Your task to perform on an android device: open the mobile data screen to see how much data has been used Image 0: 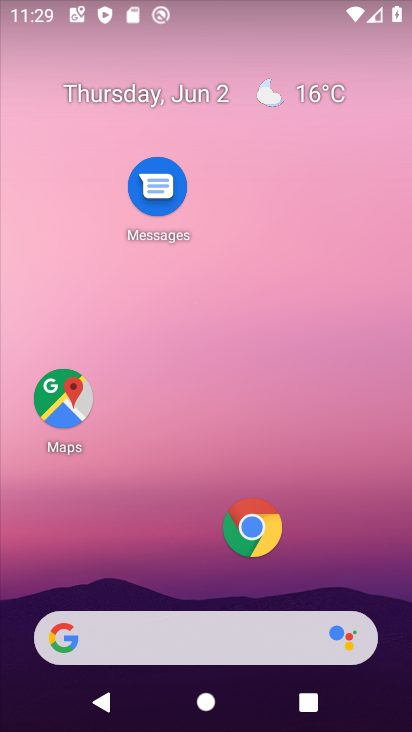
Step 0: press home button
Your task to perform on an android device: open the mobile data screen to see how much data has been used Image 1: 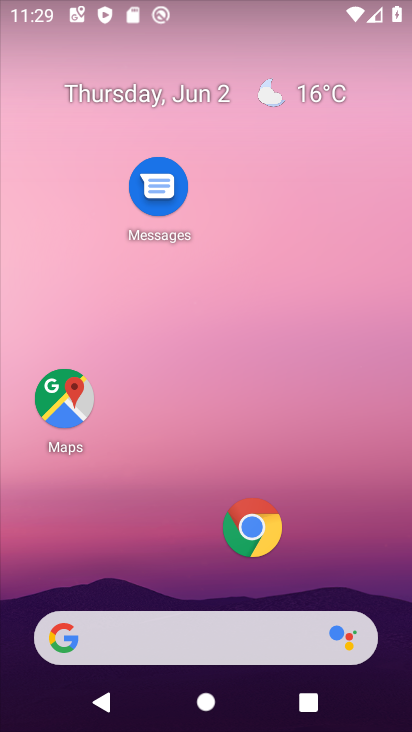
Step 1: drag from (219, 587) to (252, 74)
Your task to perform on an android device: open the mobile data screen to see how much data has been used Image 2: 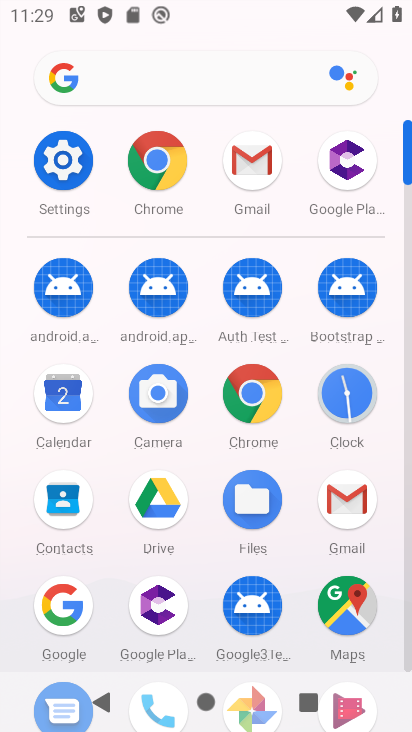
Step 2: click (62, 151)
Your task to perform on an android device: open the mobile data screen to see how much data has been used Image 3: 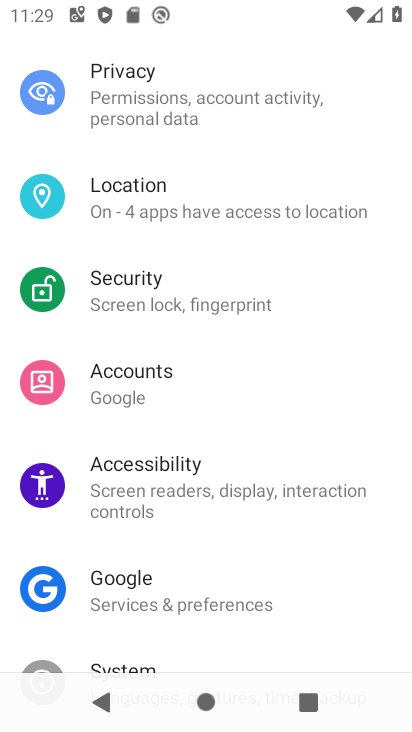
Step 3: drag from (179, 149) to (167, 624)
Your task to perform on an android device: open the mobile data screen to see how much data has been used Image 4: 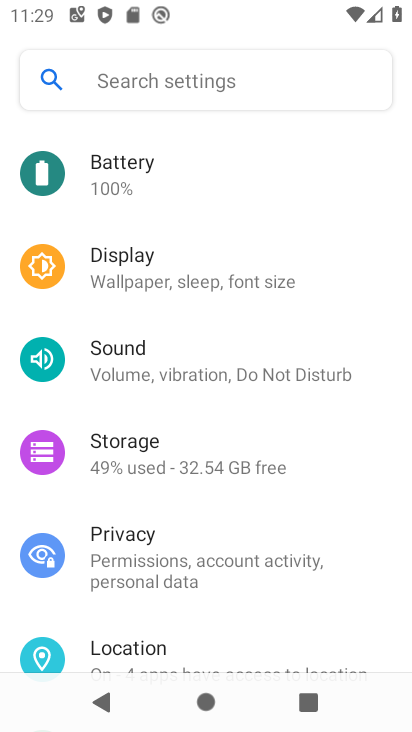
Step 4: drag from (172, 139) to (169, 635)
Your task to perform on an android device: open the mobile data screen to see how much data has been used Image 5: 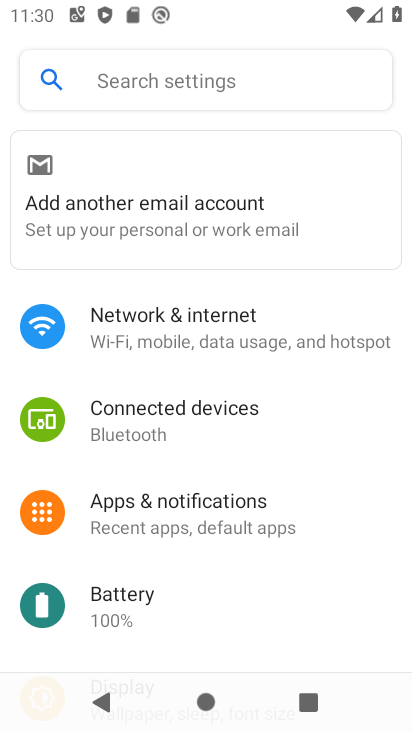
Step 5: click (265, 318)
Your task to perform on an android device: open the mobile data screen to see how much data has been used Image 6: 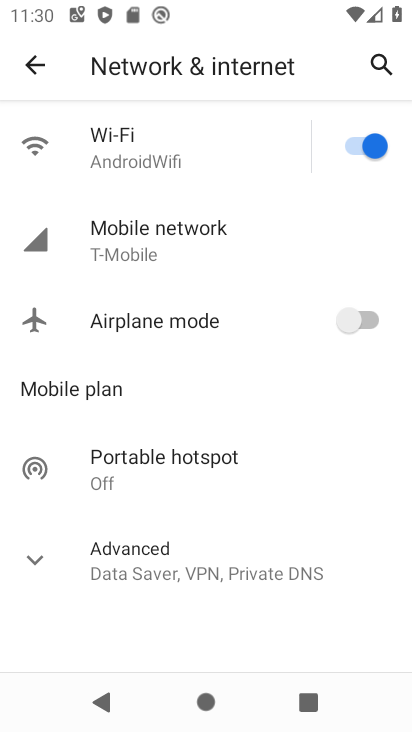
Step 6: click (200, 240)
Your task to perform on an android device: open the mobile data screen to see how much data has been used Image 7: 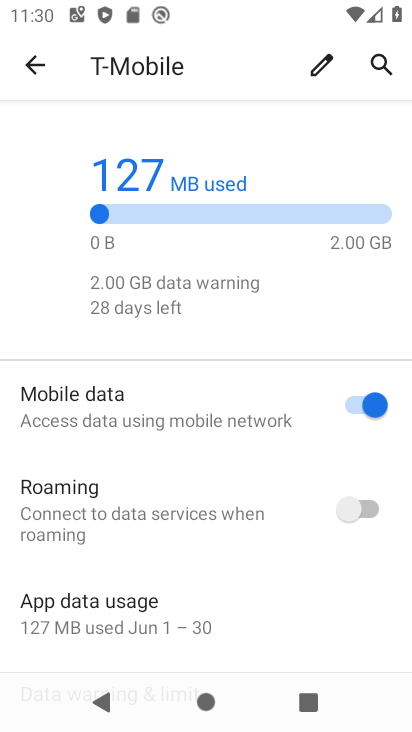
Step 7: click (174, 608)
Your task to perform on an android device: open the mobile data screen to see how much data has been used Image 8: 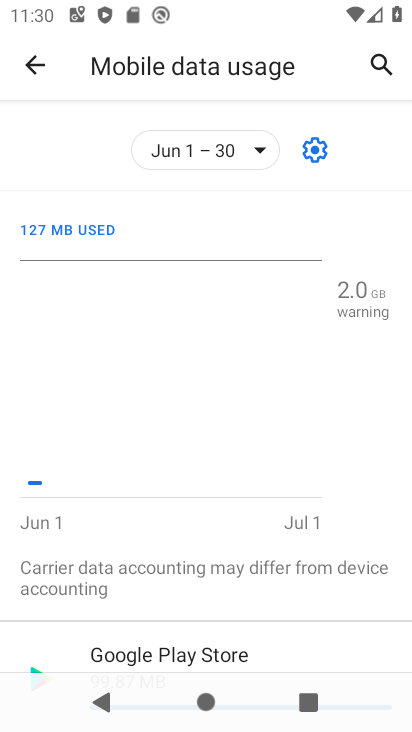
Step 8: task complete